Your task to perform on an android device: open app "Duolingo: language lessons" Image 0: 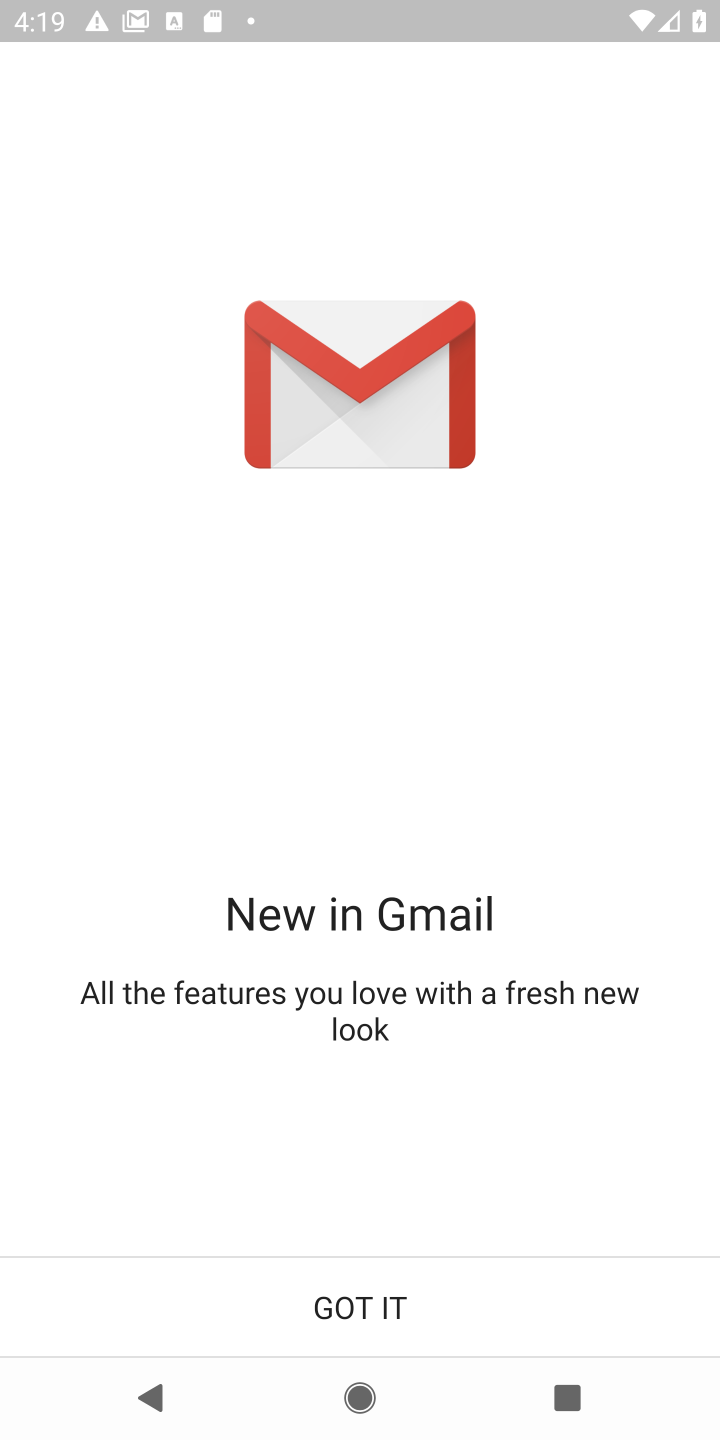
Step 0: press home button
Your task to perform on an android device: open app "Duolingo: language lessons" Image 1: 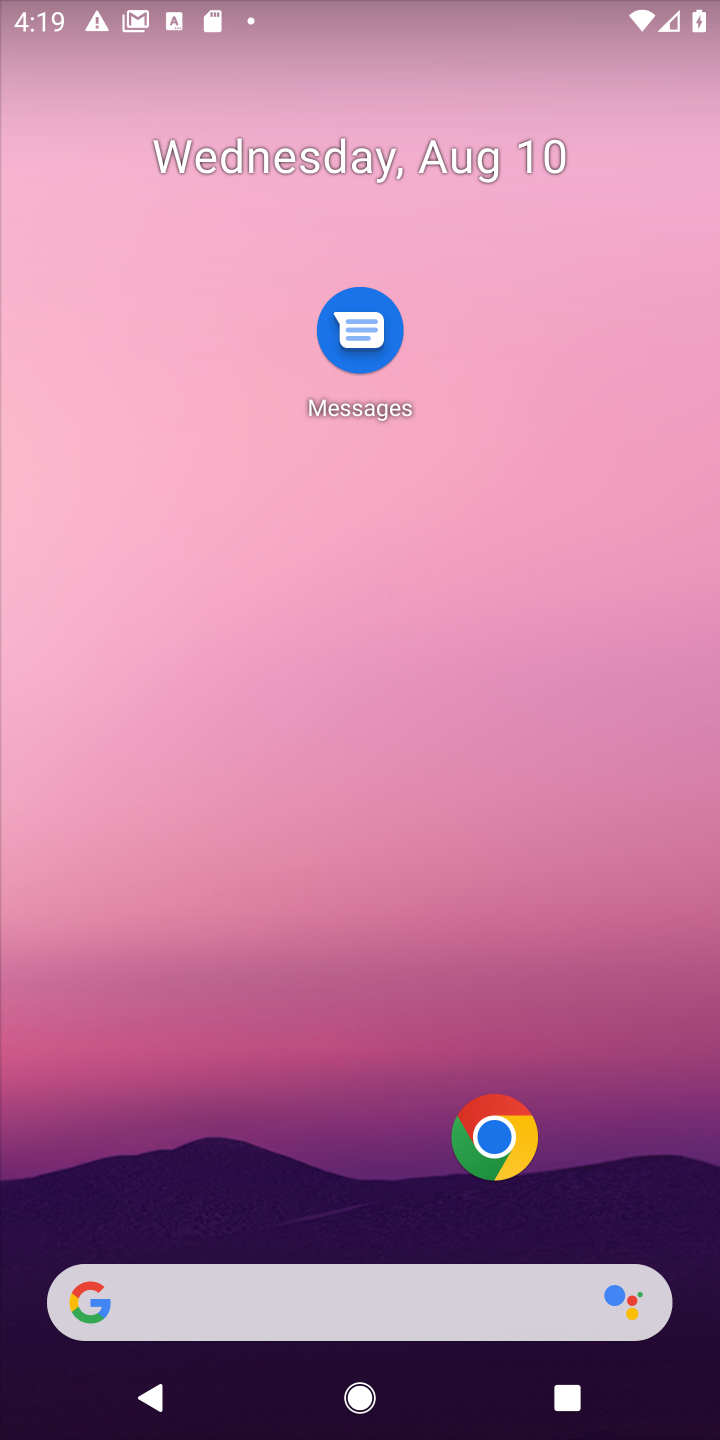
Step 1: drag from (289, 1021) to (331, 232)
Your task to perform on an android device: open app "Duolingo: language lessons" Image 2: 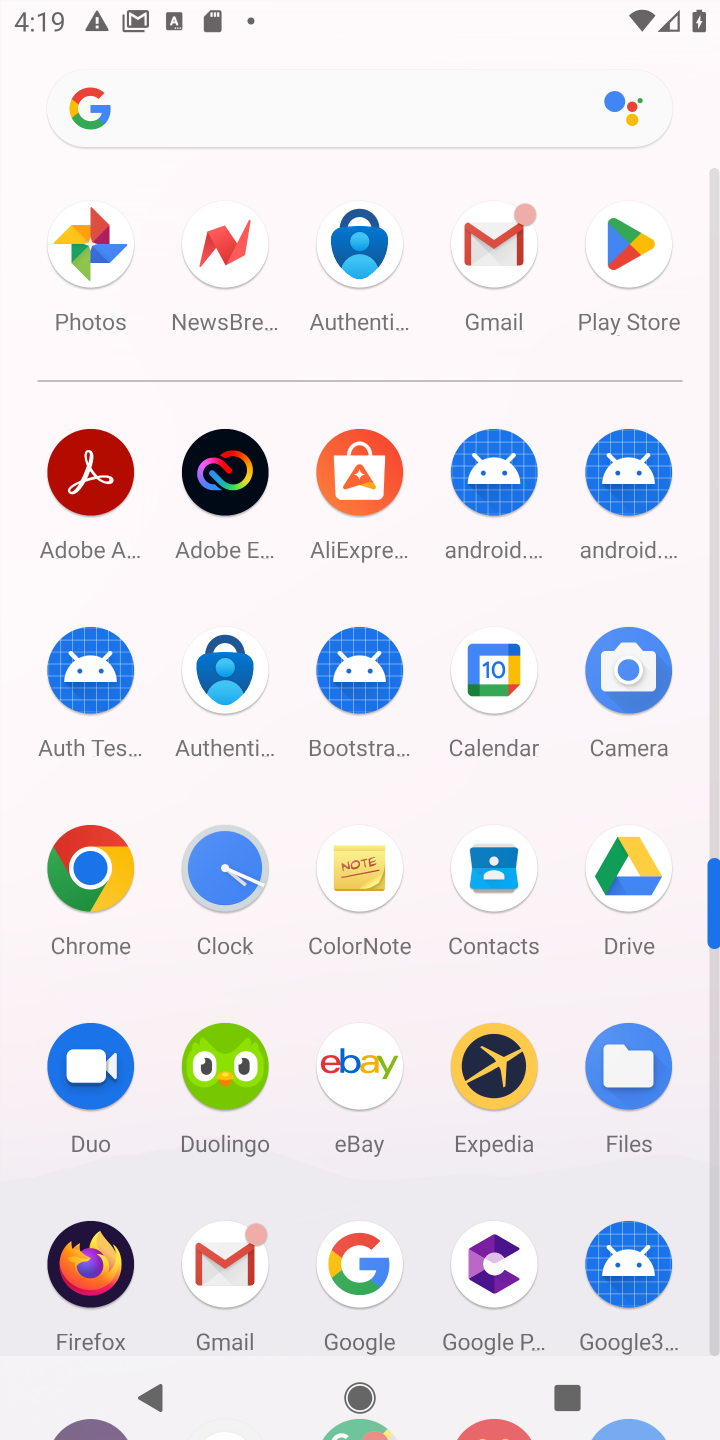
Step 2: click (623, 275)
Your task to perform on an android device: open app "Duolingo: language lessons" Image 3: 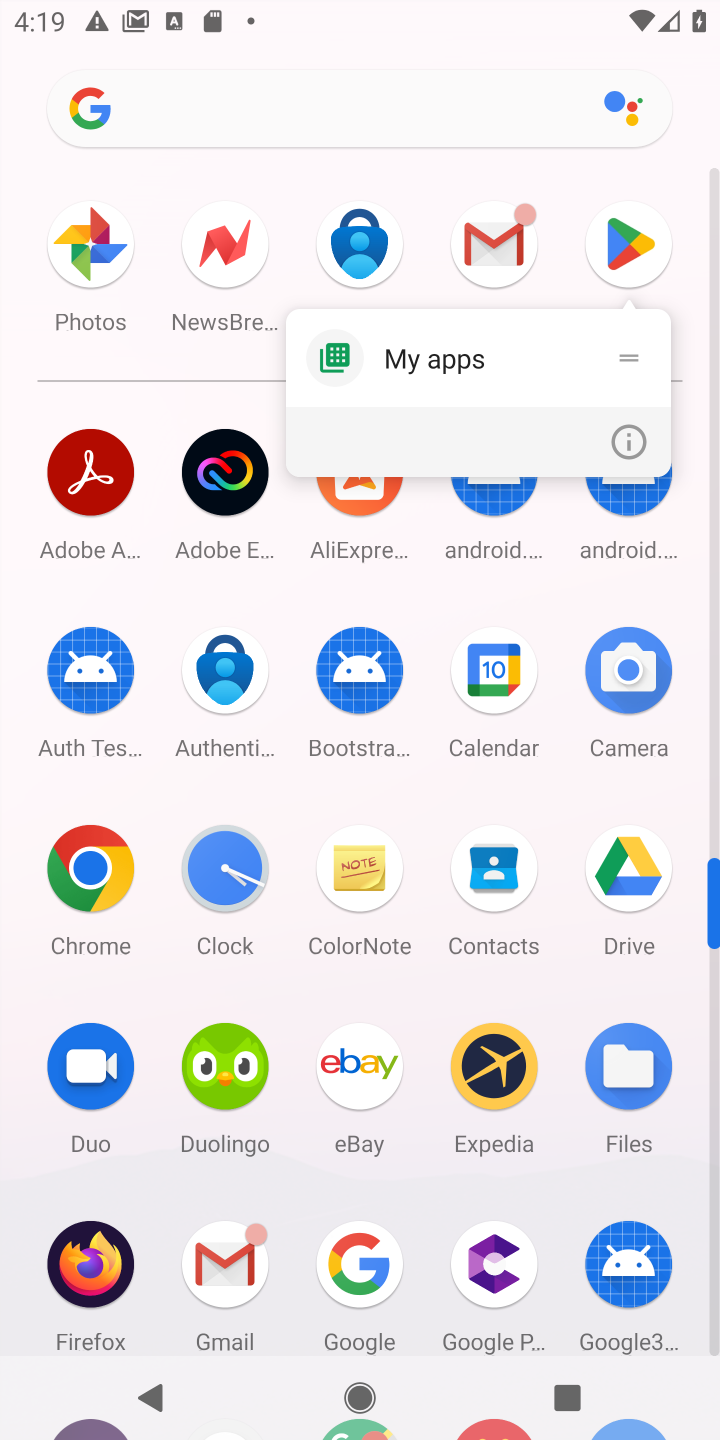
Step 3: click (618, 232)
Your task to perform on an android device: open app "Duolingo: language lessons" Image 4: 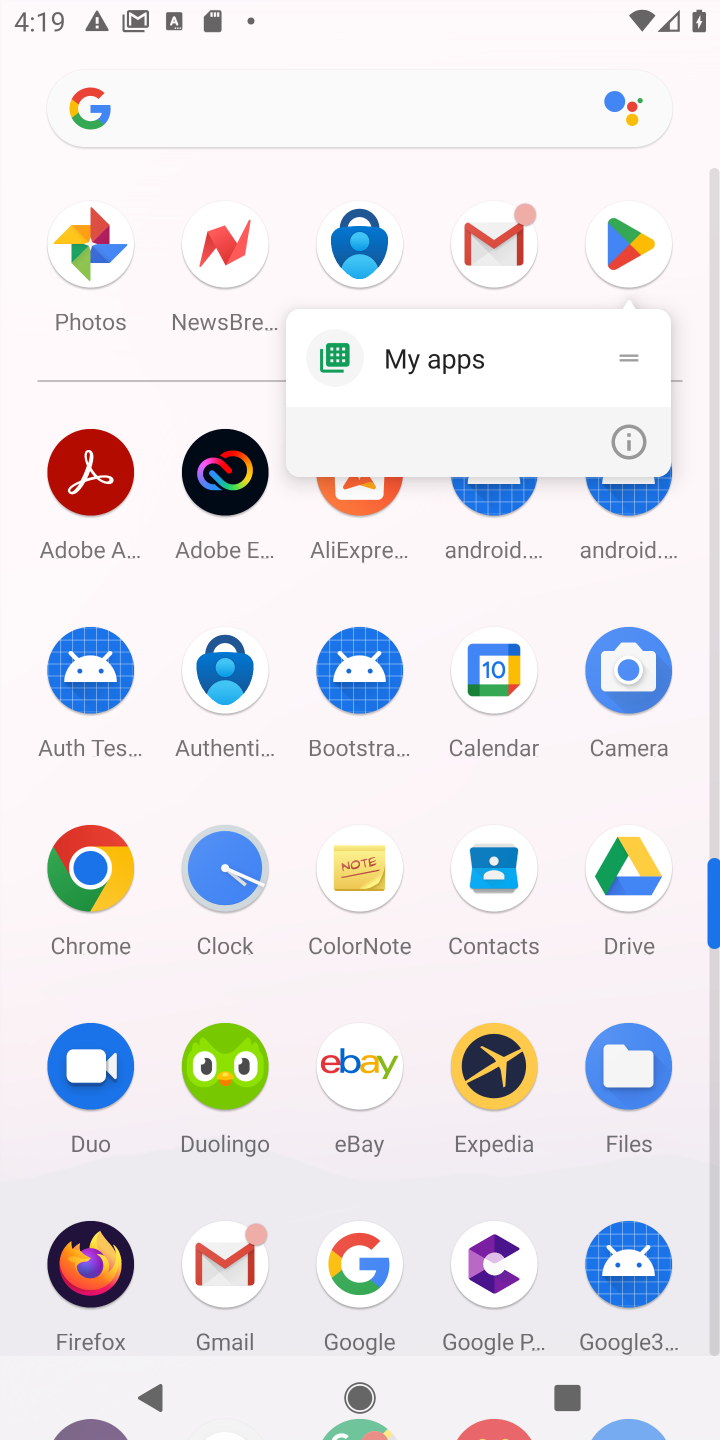
Step 4: click (618, 232)
Your task to perform on an android device: open app "Duolingo: language lessons" Image 5: 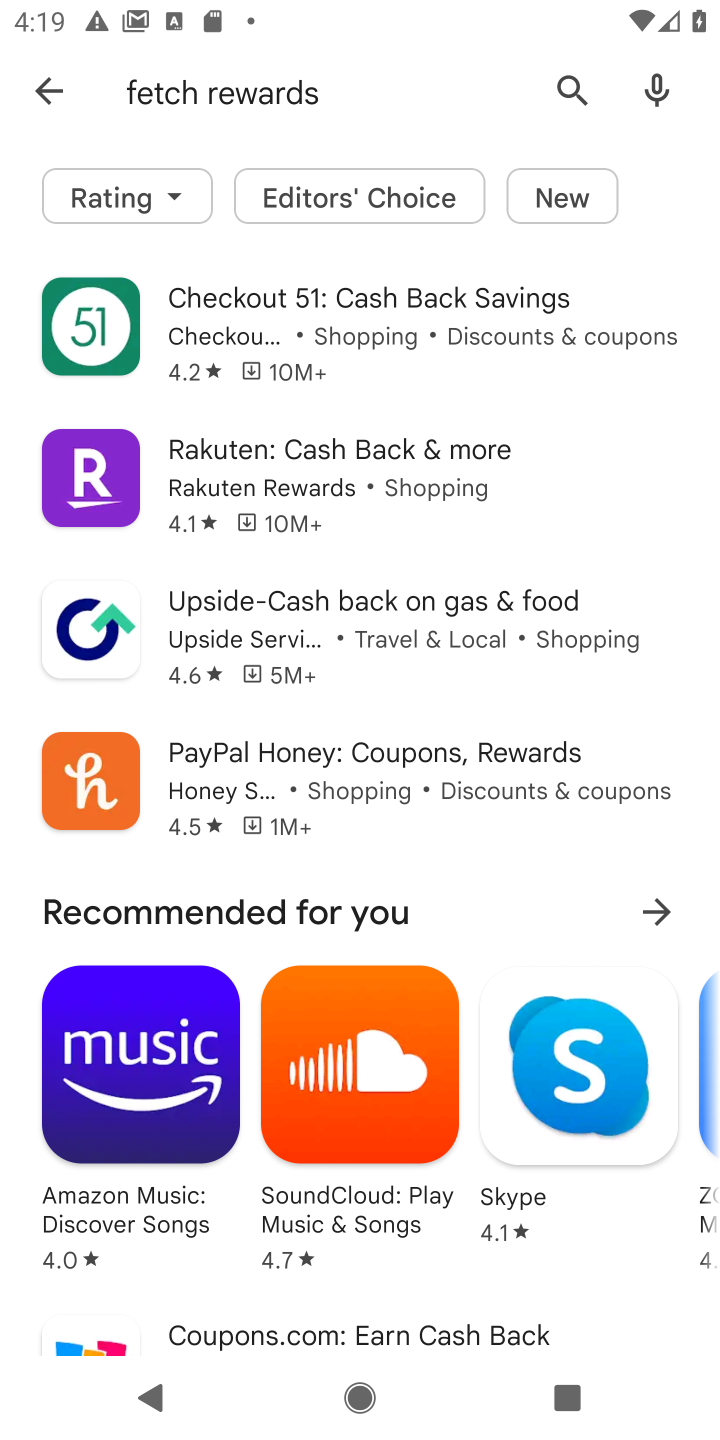
Step 5: click (250, 86)
Your task to perform on an android device: open app "Duolingo: language lessons" Image 6: 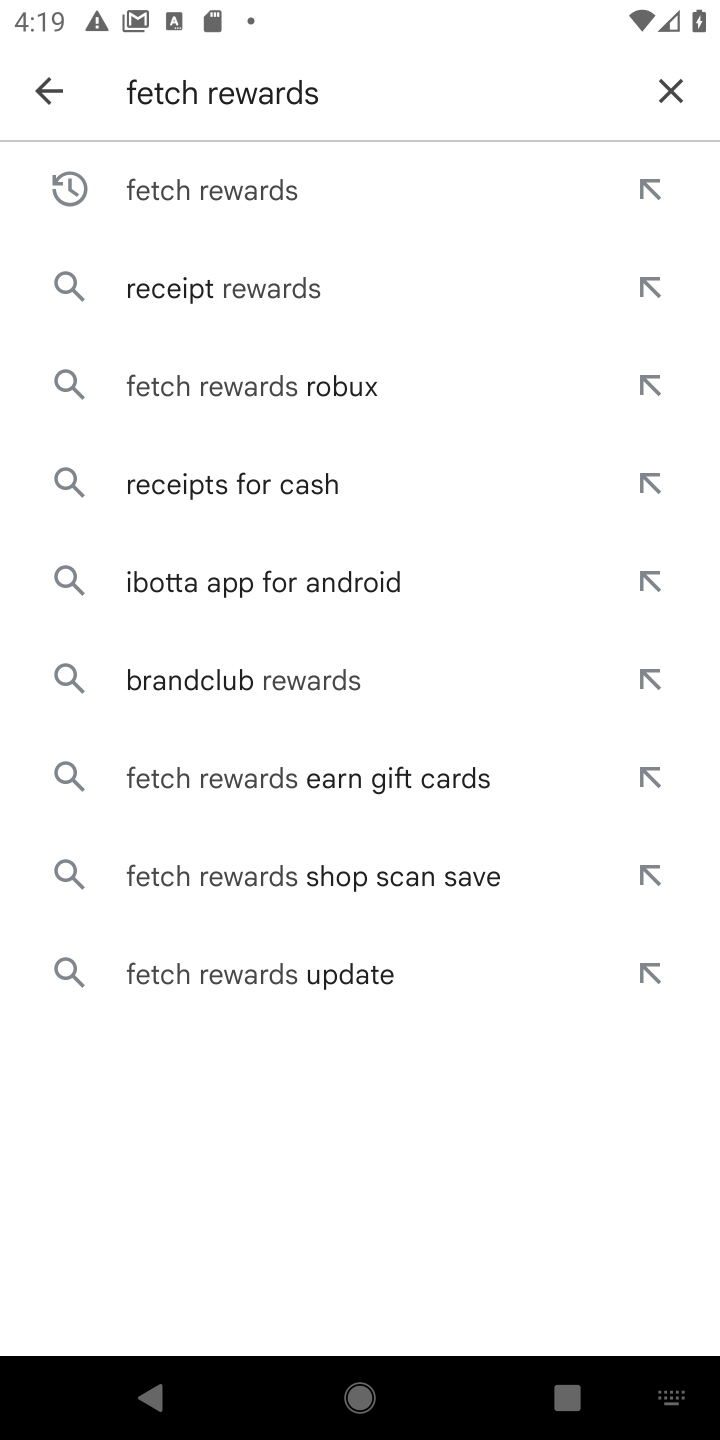
Step 6: click (673, 105)
Your task to perform on an android device: open app "Duolingo: language lessons" Image 7: 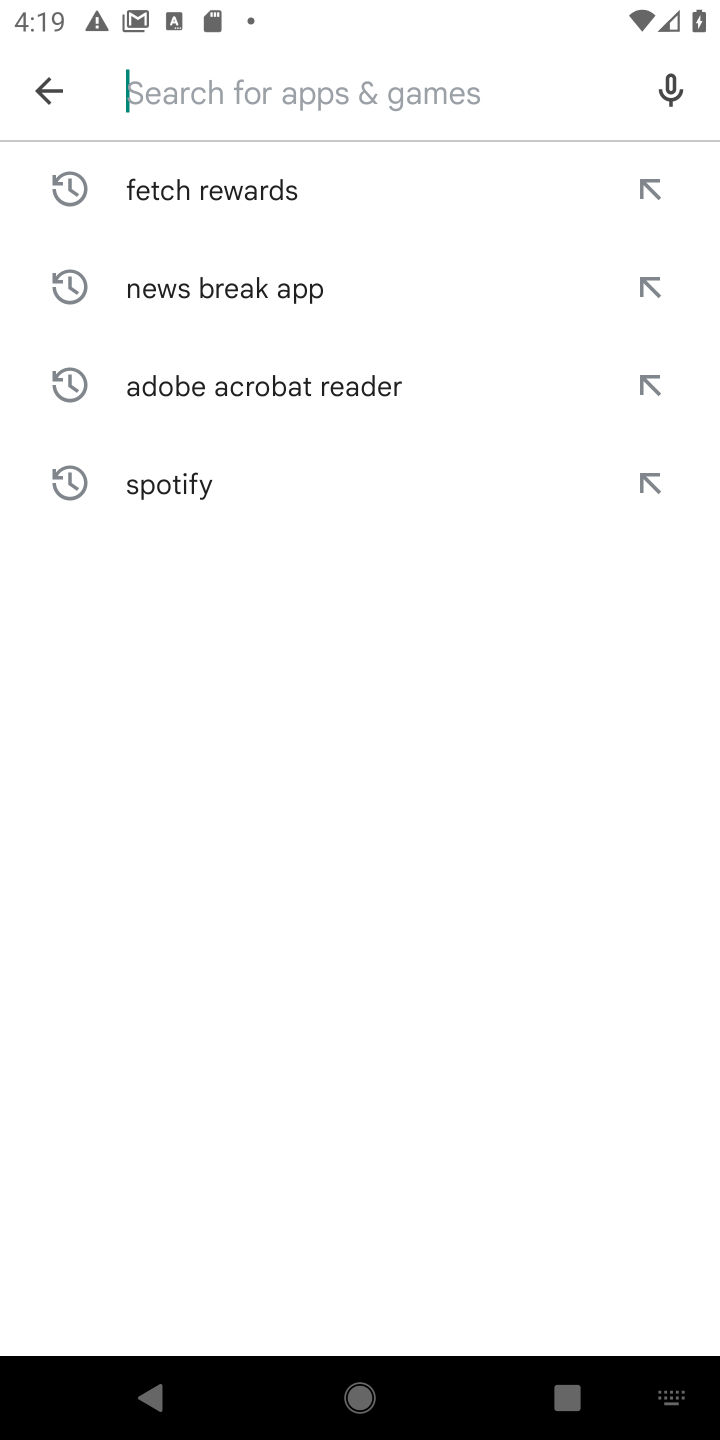
Step 7: type "duolingo"
Your task to perform on an android device: open app "Duolingo: language lessons" Image 8: 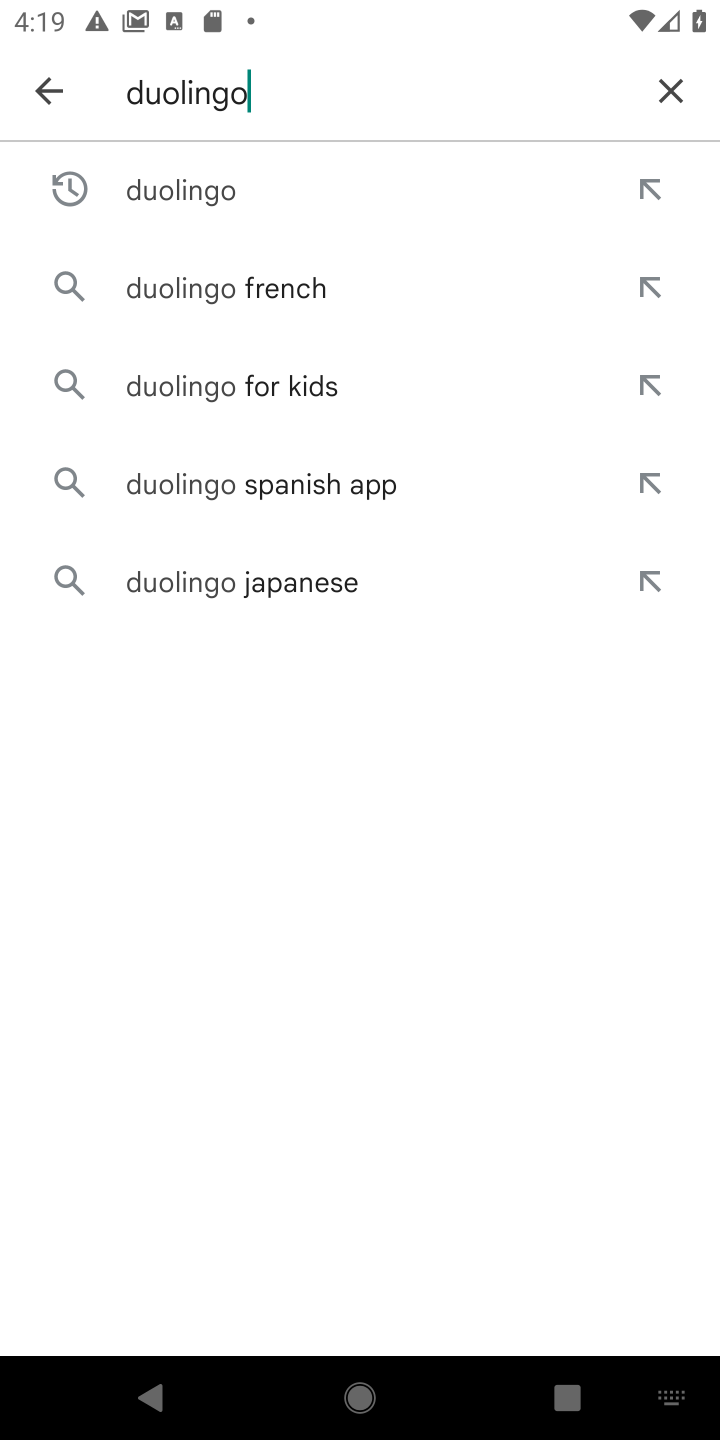
Step 8: click (182, 182)
Your task to perform on an android device: open app "Duolingo: language lessons" Image 9: 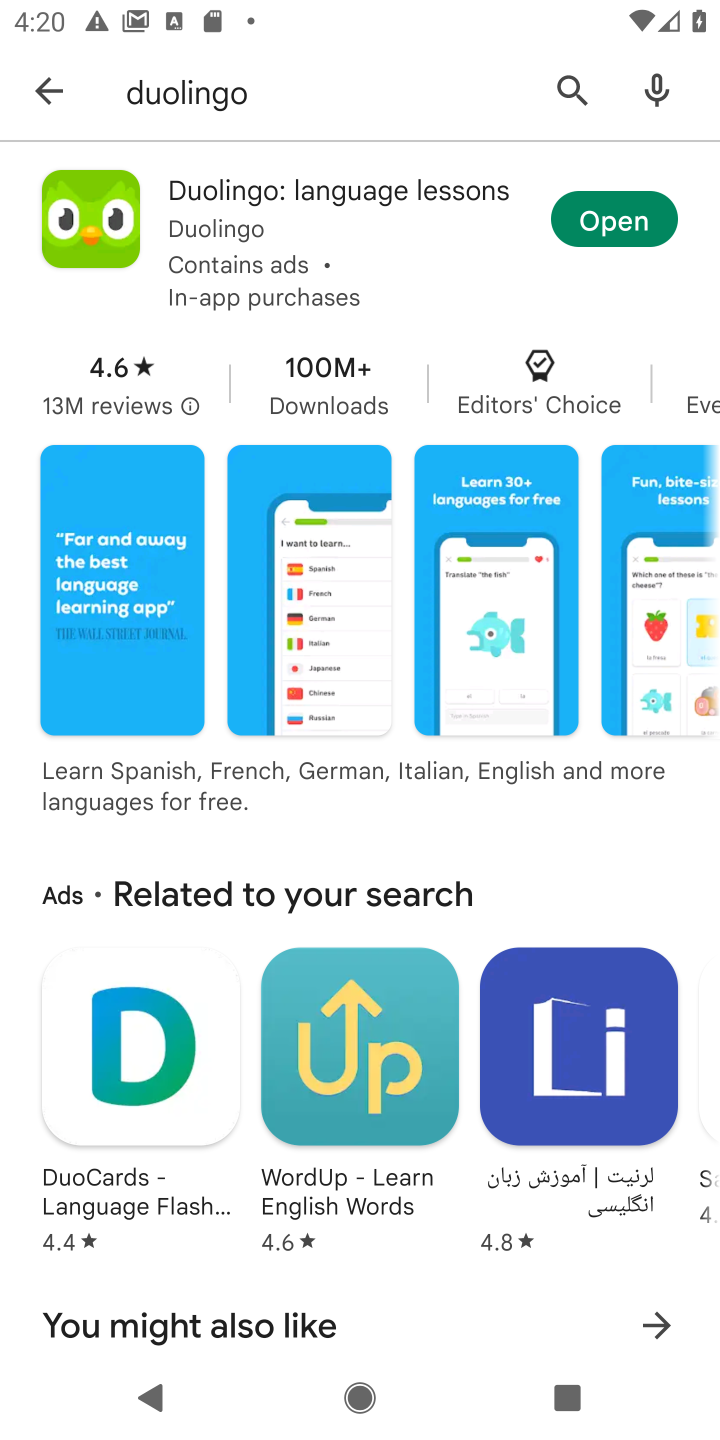
Step 9: click (621, 215)
Your task to perform on an android device: open app "Duolingo: language lessons" Image 10: 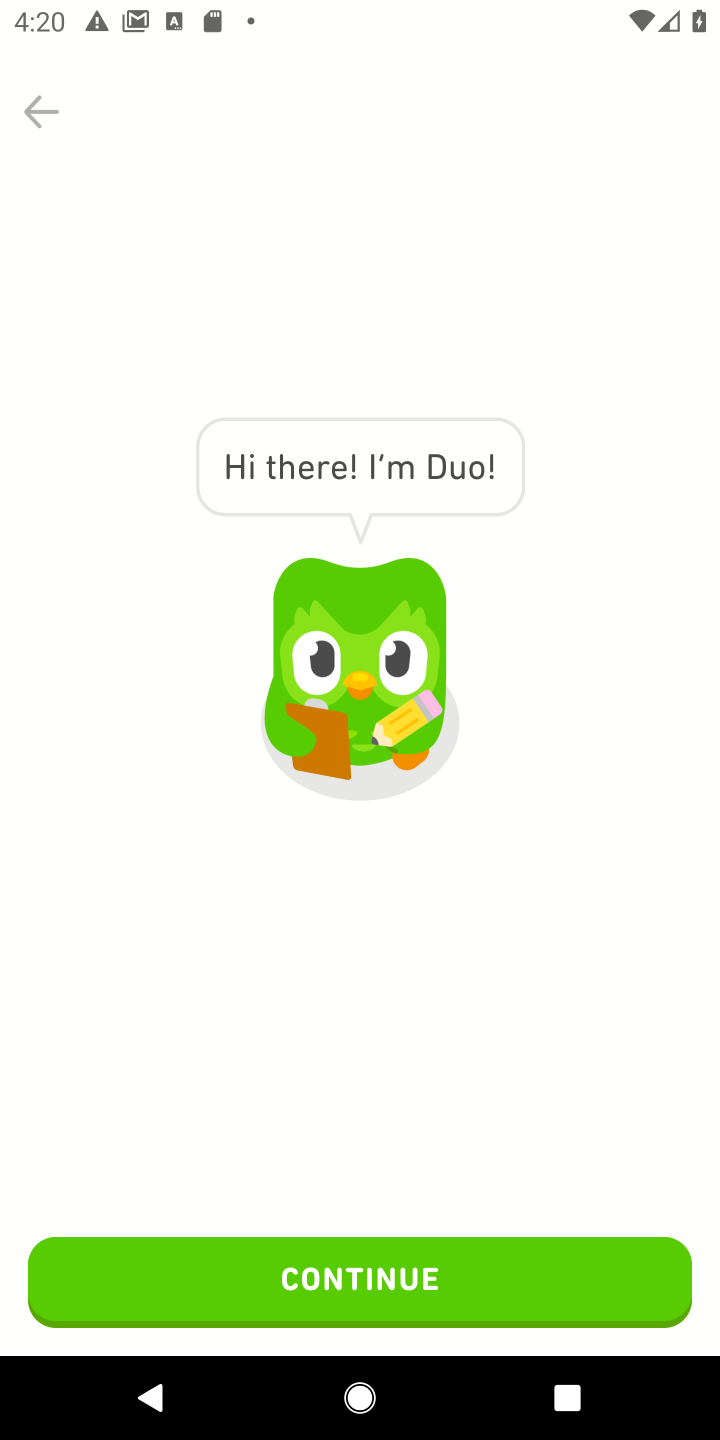
Step 10: click (323, 1316)
Your task to perform on an android device: open app "Duolingo: language lessons" Image 11: 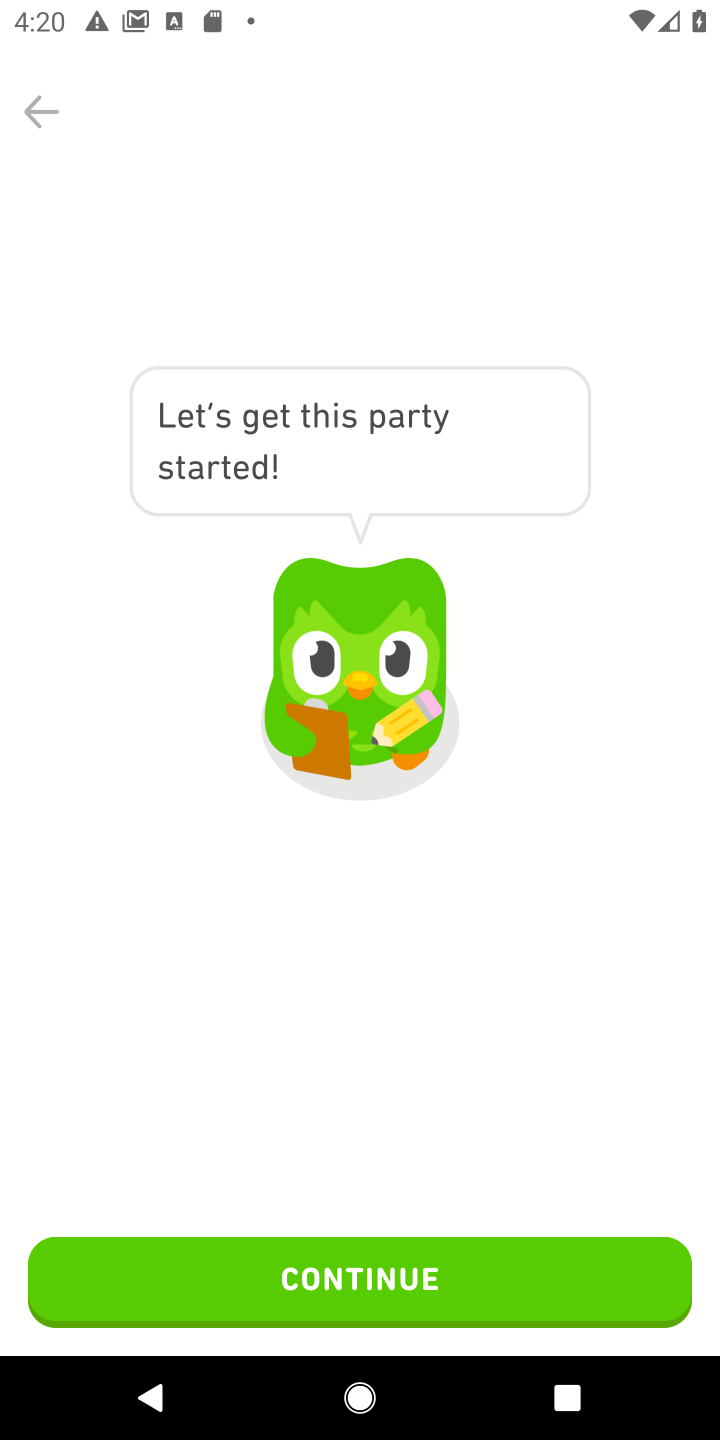
Step 11: click (403, 1274)
Your task to perform on an android device: open app "Duolingo: language lessons" Image 12: 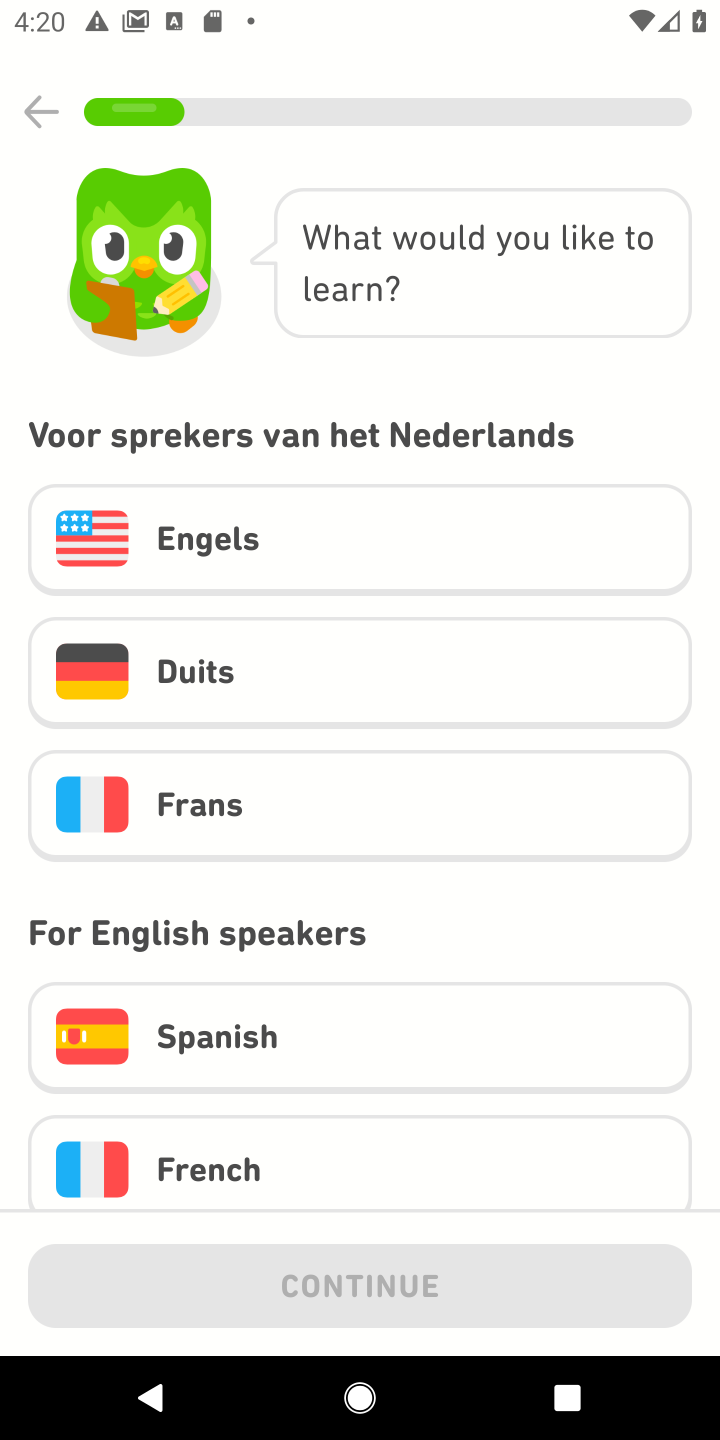
Step 12: task complete